Your task to perform on an android device: allow notifications from all sites in the chrome app Image 0: 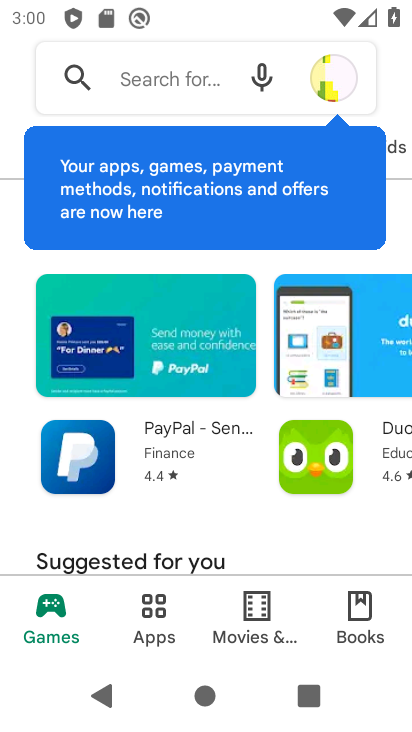
Step 0: press home button
Your task to perform on an android device: allow notifications from all sites in the chrome app Image 1: 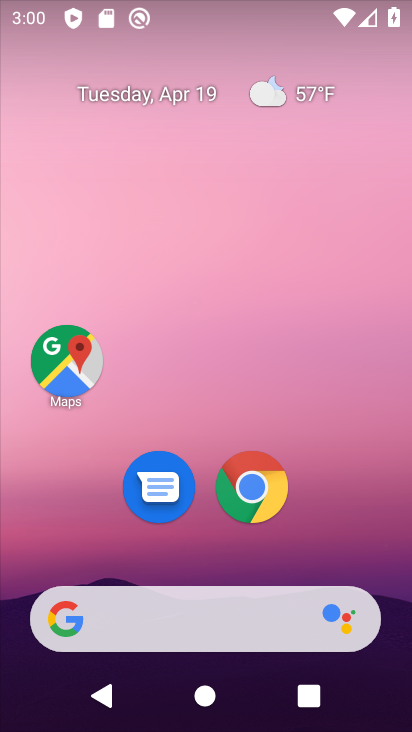
Step 1: click (253, 498)
Your task to perform on an android device: allow notifications from all sites in the chrome app Image 2: 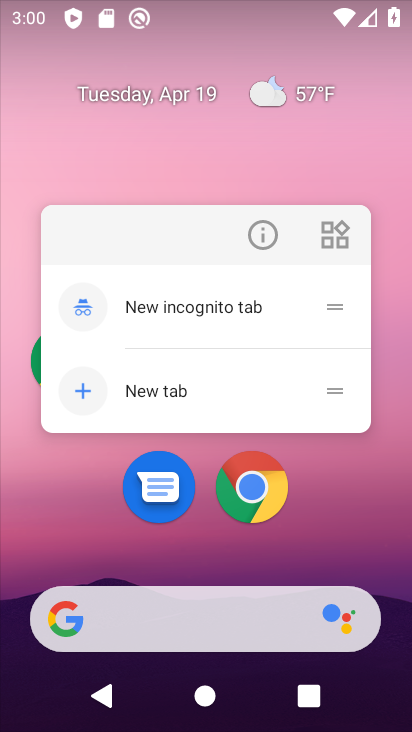
Step 2: click (274, 512)
Your task to perform on an android device: allow notifications from all sites in the chrome app Image 3: 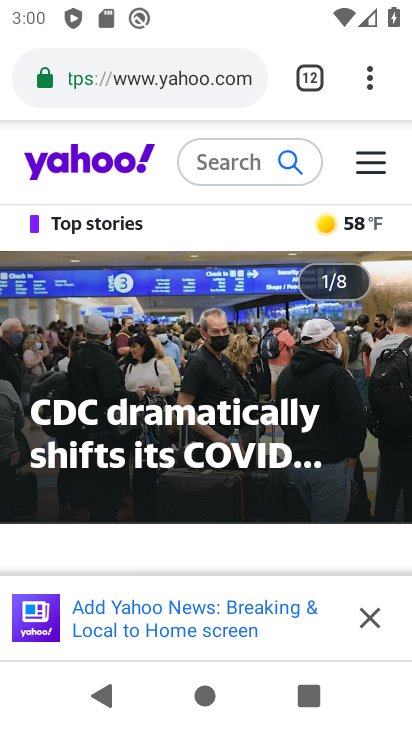
Step 3: click (365, 86)
Your task to perform on an android device: allow notifications from all sites in the chrome app Image 4: 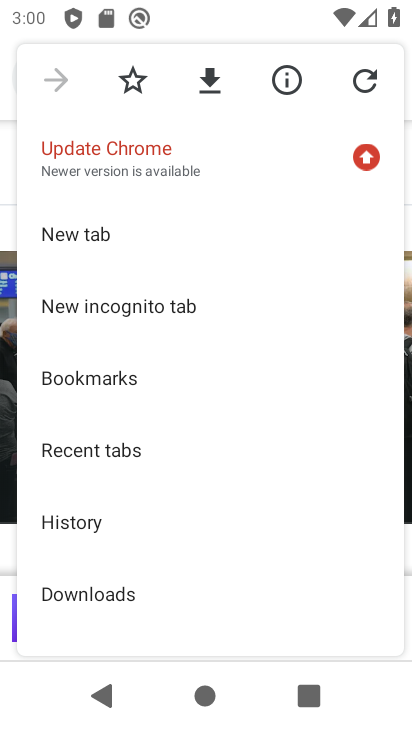
Step 4: drag from (178, 547) to (170, 406)
Your task to perform on an android device: allow notifications from all sites in the chrome app Image 5: 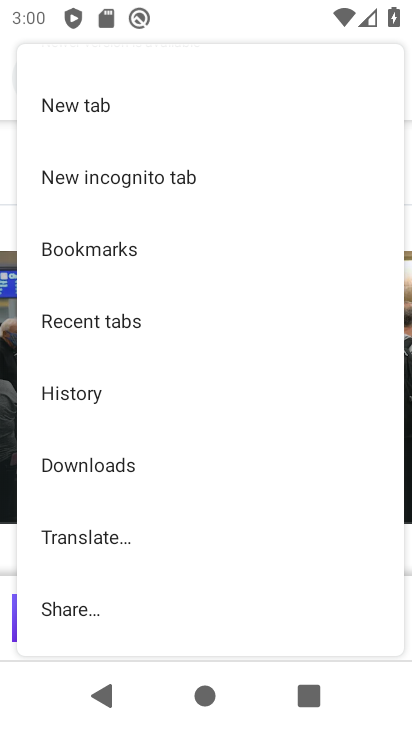
Step 5: drag from (153, 575) to (160, 369)
Your task to perform on an android device: allow notifications from all sites in the chrome app Image 6: 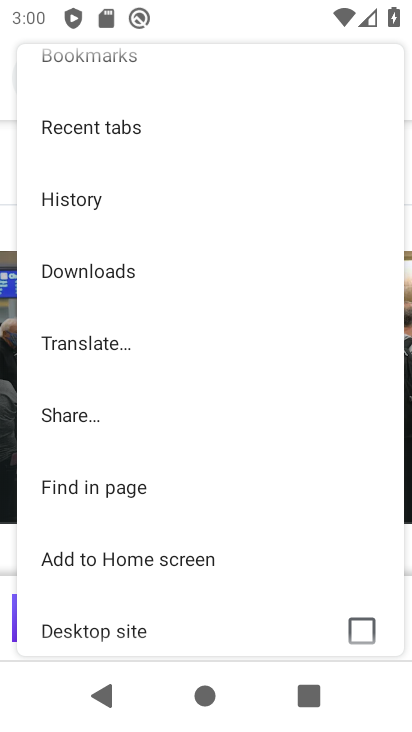
Step 6: drag from (210, 536) to (223, 337)
Your task to perform on an android device: allow notifications from all sites in the chrome app Image 7: 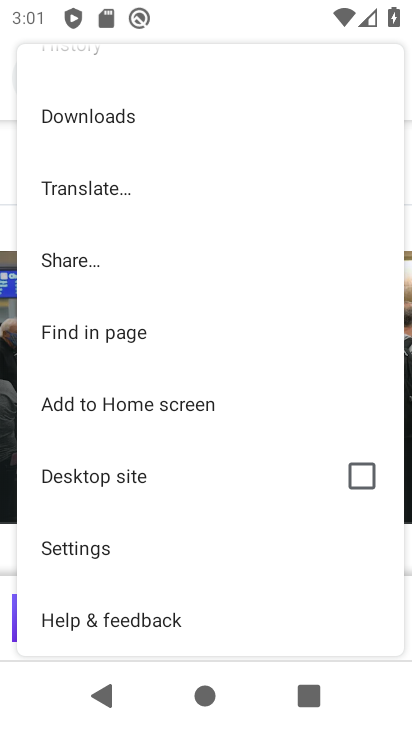
Step 7: click (99, 548)
Your task to perform on an android device: allow notifications from all sites in the chrome app Image 8: 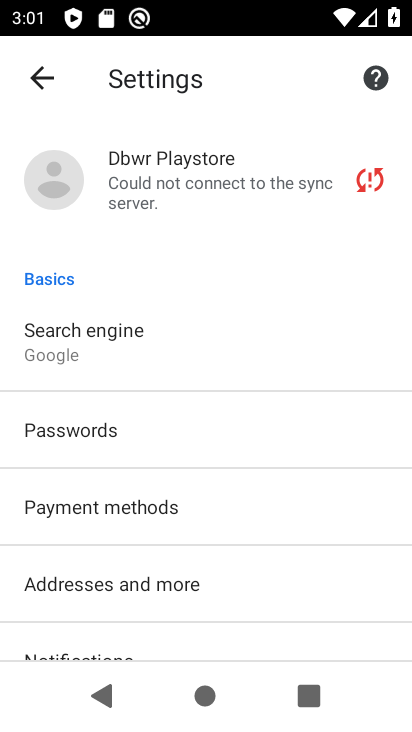
Step 8: drag from (241, 565) to (237, 312)
Your task to perform on an android device: allow notifications from all sites in the chrome app Image 9: 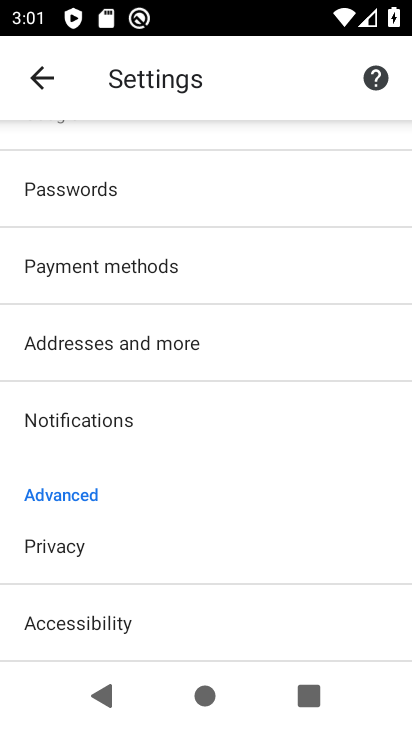
Step 9: drag from (240, 566) to (256, 332)
Your task to perform on an android device: allow notifications from all sites in the chrome app Image 10: 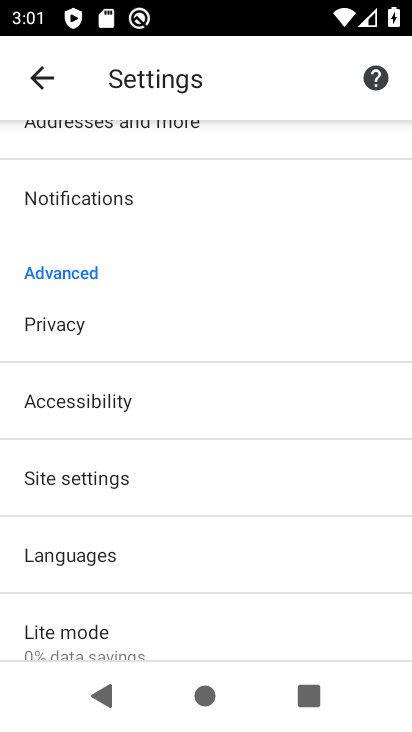
Step 10: click (132, 482)
Your task to perform on an android device: allow notifications from all sites in the chrome app Image 11: 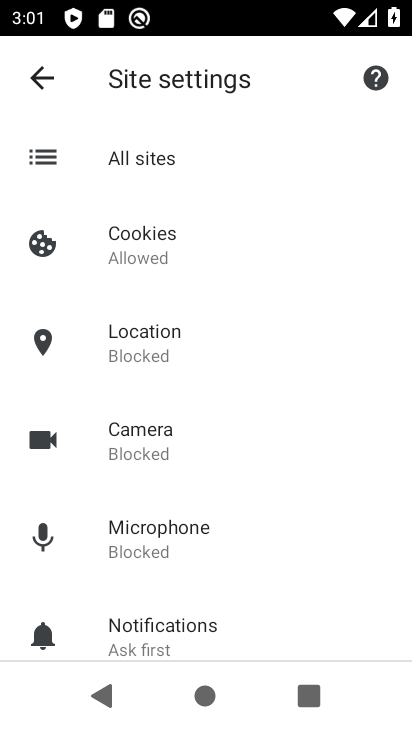
Step 11: click (161, 155)
Your task to perform on an android device: allow notifications from all sites in the chrome app Image 12: 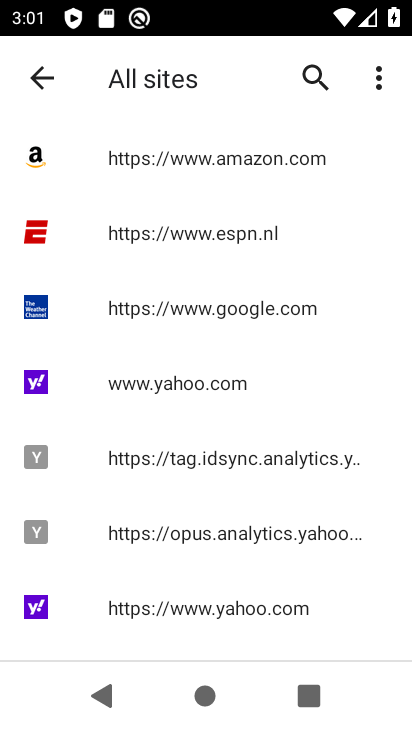
Step 12: click (186, 162)
Your task to perform on an android device: allow notifications from all sites in the chrome app Image 13: 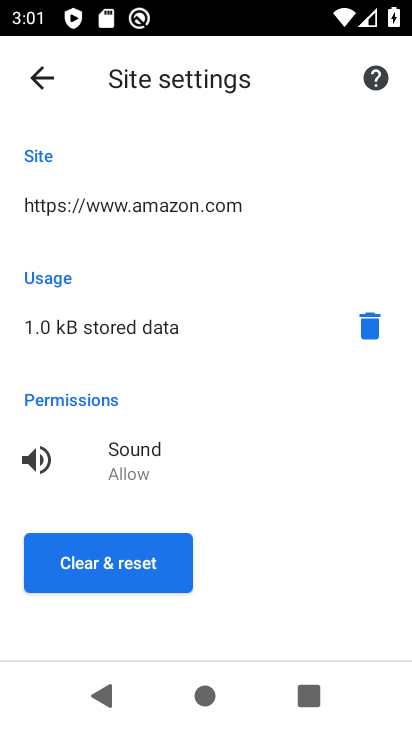
Step 13: task complete